Your task to perform on an android device: empty trash in google photos Image 0: 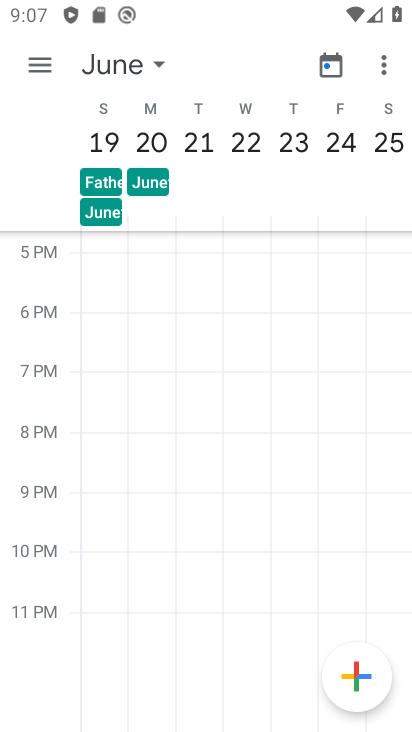
Step 0: press home button
Your task to perform on an android device: empty trash in google photos Image 1: 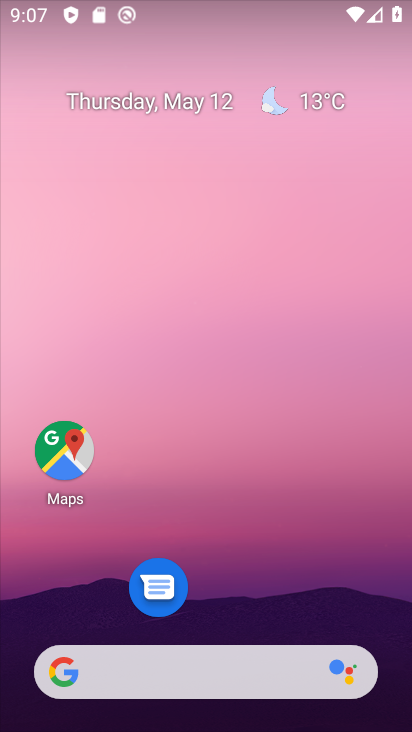
Step 1: drag from (228, 627) to (346, 66)
Your task to perform on an android device: empty trash in google photos Image 2: 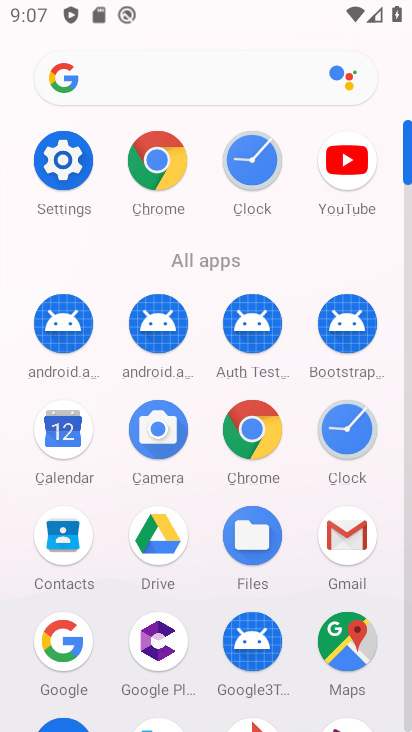
Step 2: drag from (202, 599) to (194, 143)
Your task to perform on an android device: empty trash in google photos Image 3: 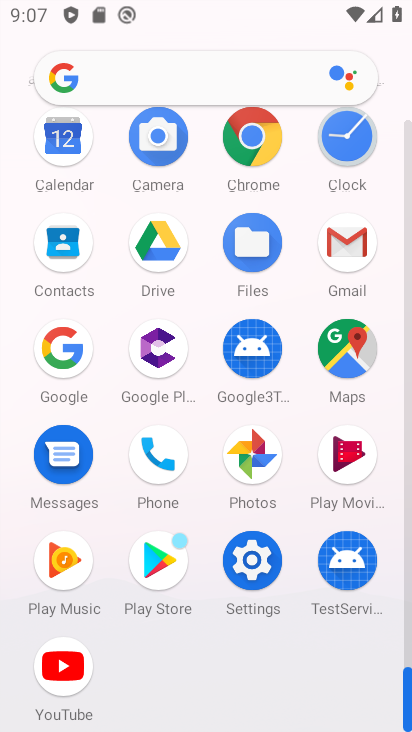
Step 3: click (237, 449)
Your task to perform on an android device: empty trash in google photos Image 4: 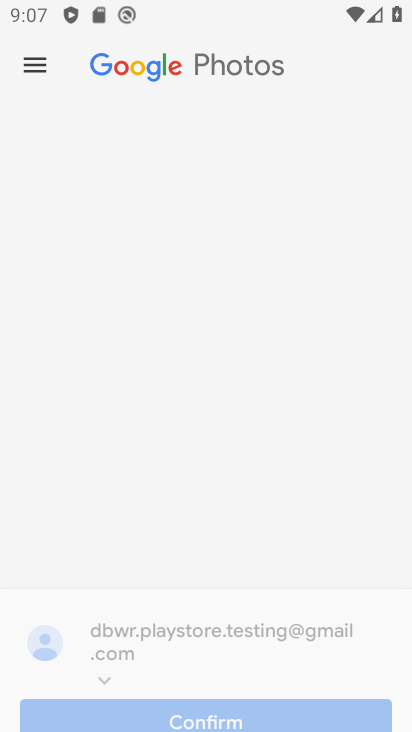
Step 4: click (37, 62)
Your task to perform on an android device: empty trash in google photos Image 5: 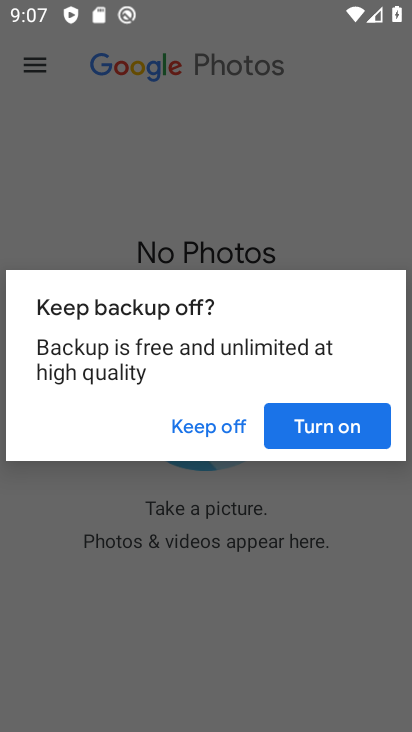
Step 5: click (183, 415)
Your task to perform on an android device: empty trash in google photos Image 6: 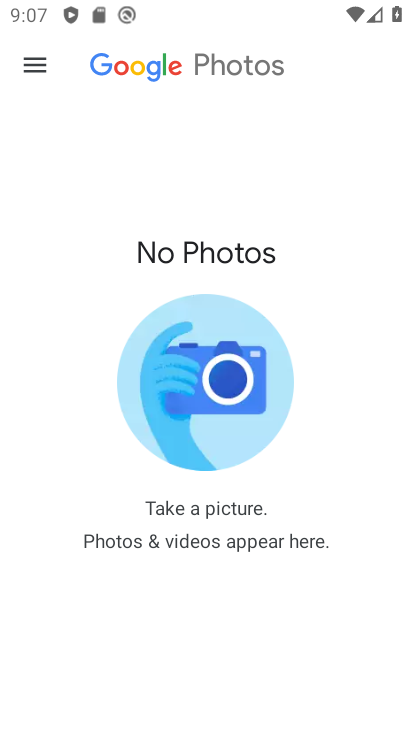
Step 6: click (39, 68)
Your task to perform on an android device: empty trash in google photos Image 7: 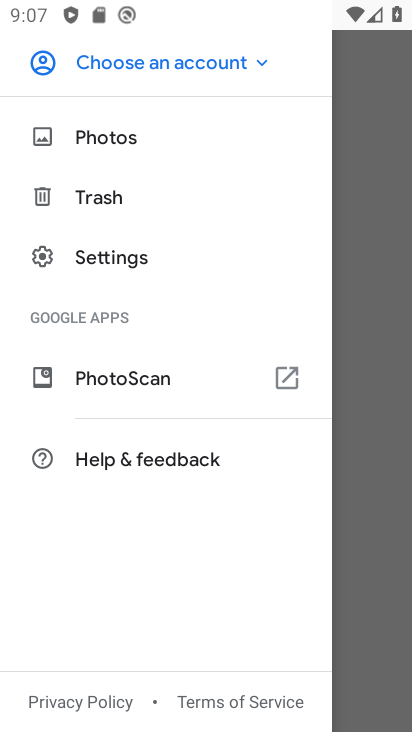
Step 7: click (112, 195)
Your task to perform on an android device: empty trash in google photos Image 8: 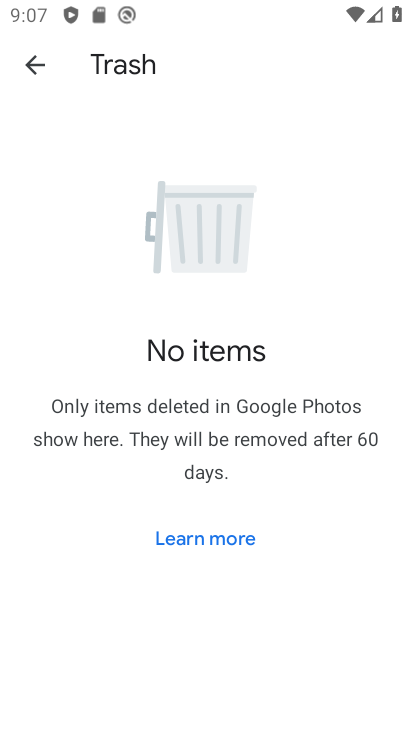
Step 8: task complete